Your task to perform on an android device: View the shopping cart on costco.com. Search for logitech g933 on costco.com, select the first entry, and add it to the cart. Image 0: 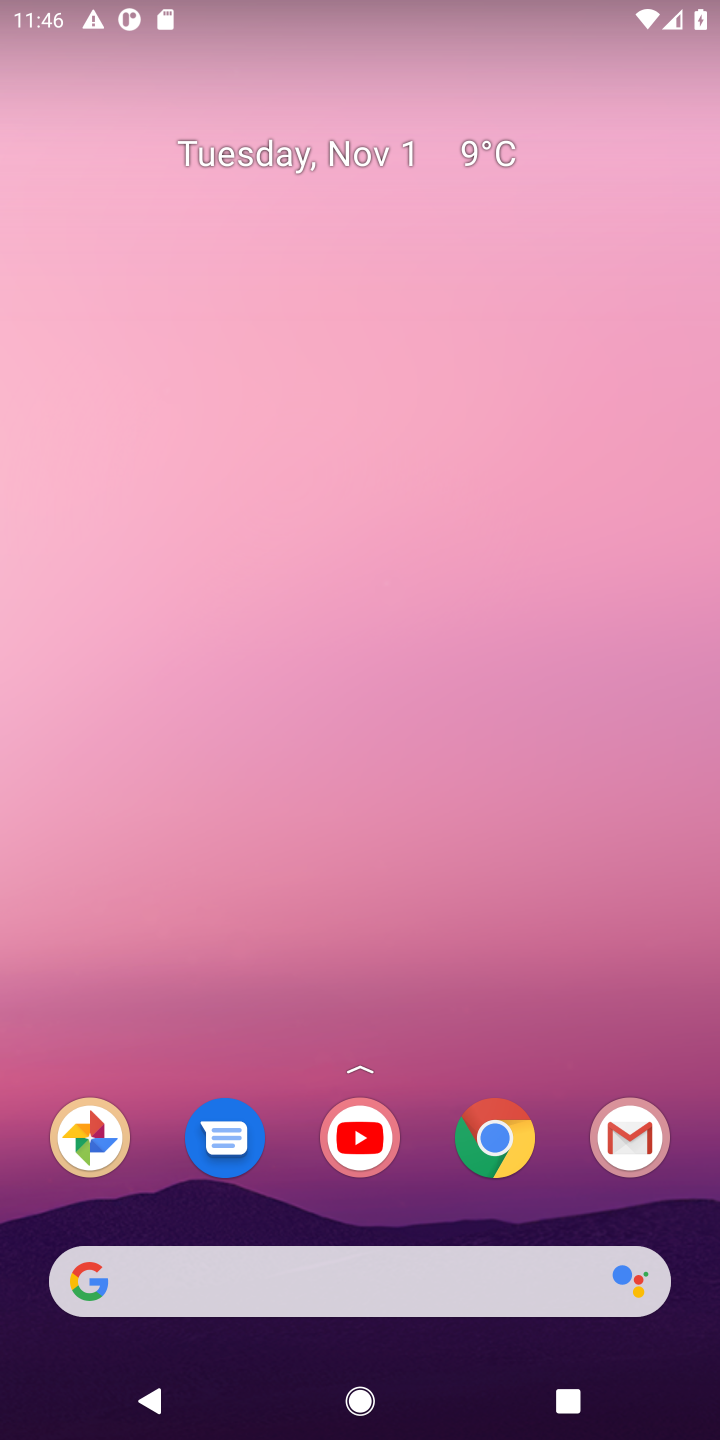
Step 0: click (534, 1273)
Your task to perform on an android device: View the shopping cart on costco.com. Search for logitech g933 on costco.com, select the first entry, and add it to the cart. Image 1: 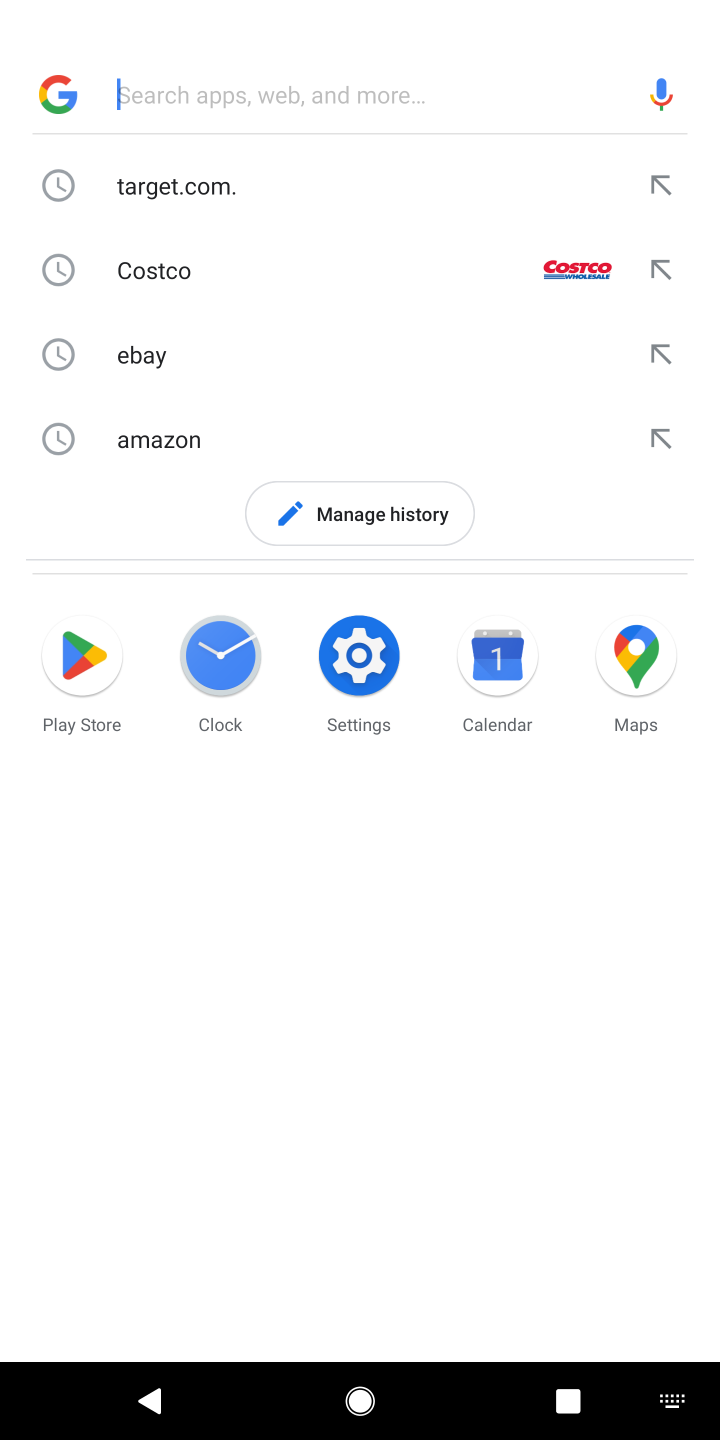
Step 1: click (712, 1365)
Your task to perform on an android device: View the shopping cart on costco.com. Search for logitech g933 on costco.com, select the first entry, and add it to the cart. Image 2: 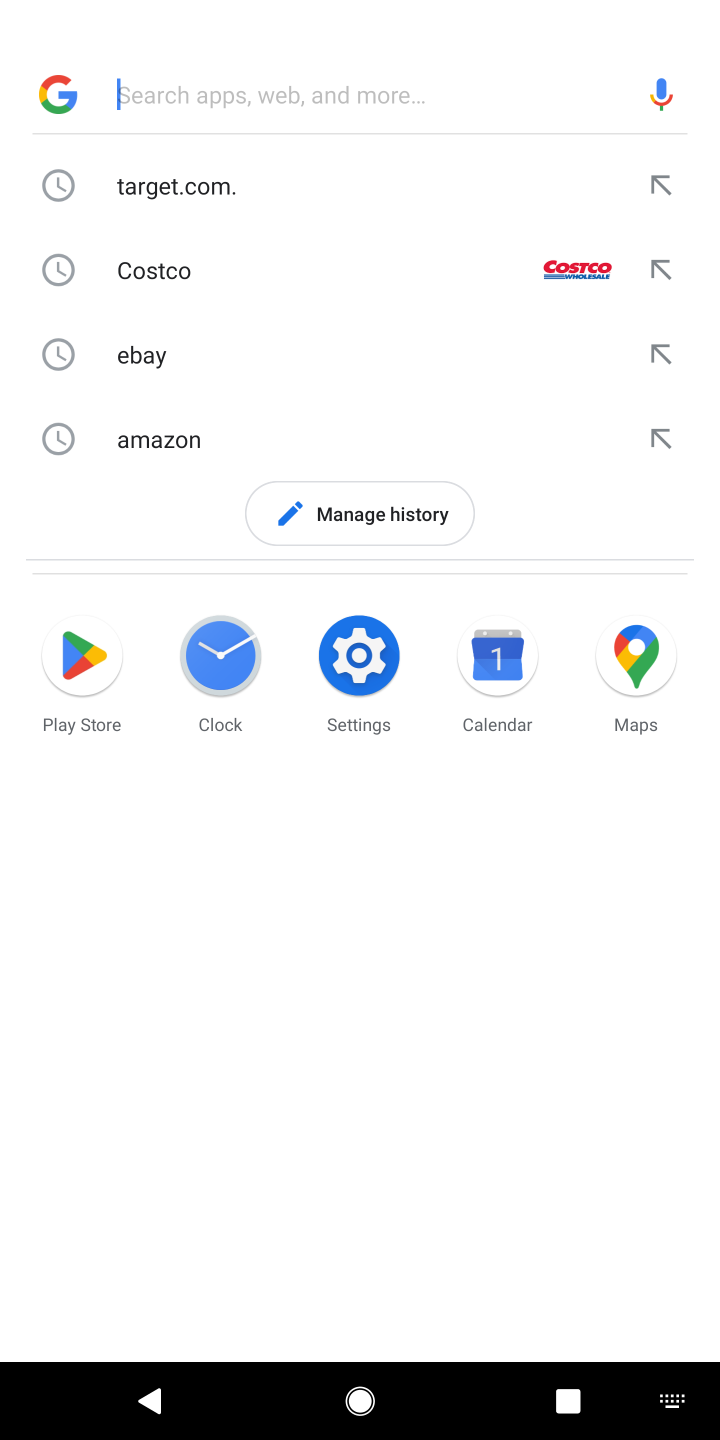
Step 2: type "costco.com"
Your task to perform on an android device: View the shopping cart on costco.com. Search for logitech g933 on costco.com, select the first entry, and add it to the cart. Image 3: 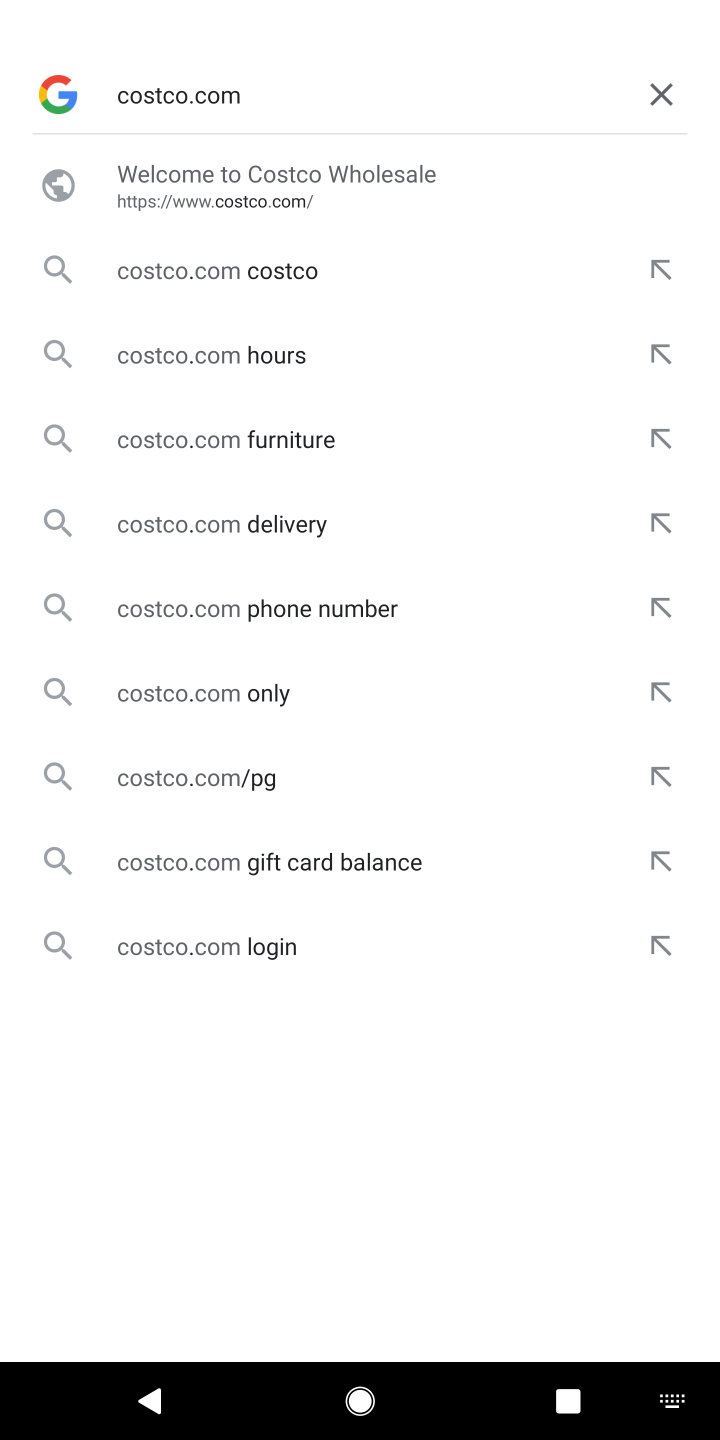
Step 3: type ""
Your task to perform on an android device: View the shopping cart on costco.com. Search for logitech g933 on costco.com, select the first entry, and add it to the cart. Image 4: 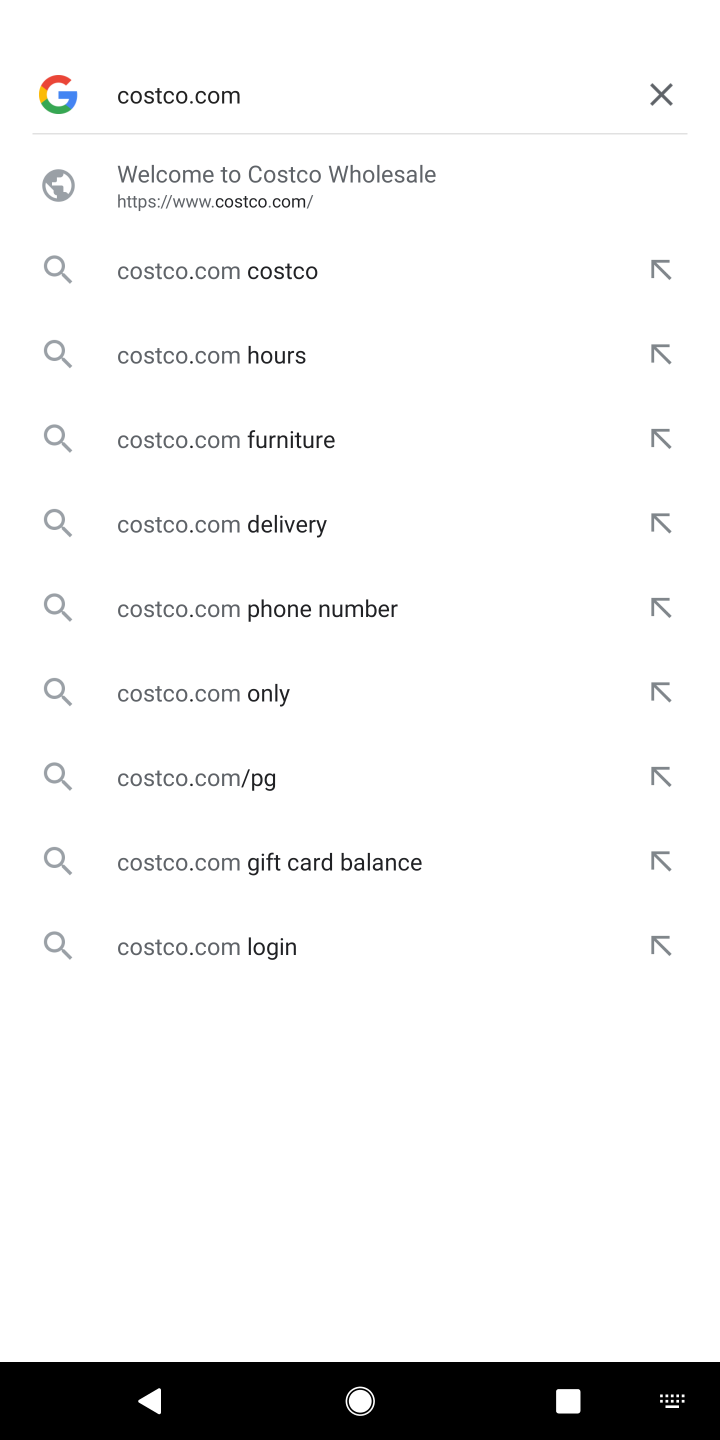
Step 4: click (345, 193)
Your task to perform on an android device: View the shopping cart on costco.com. Search for logitech g933 on costco.com, select the first entry, and add it to the cart. Image 5: 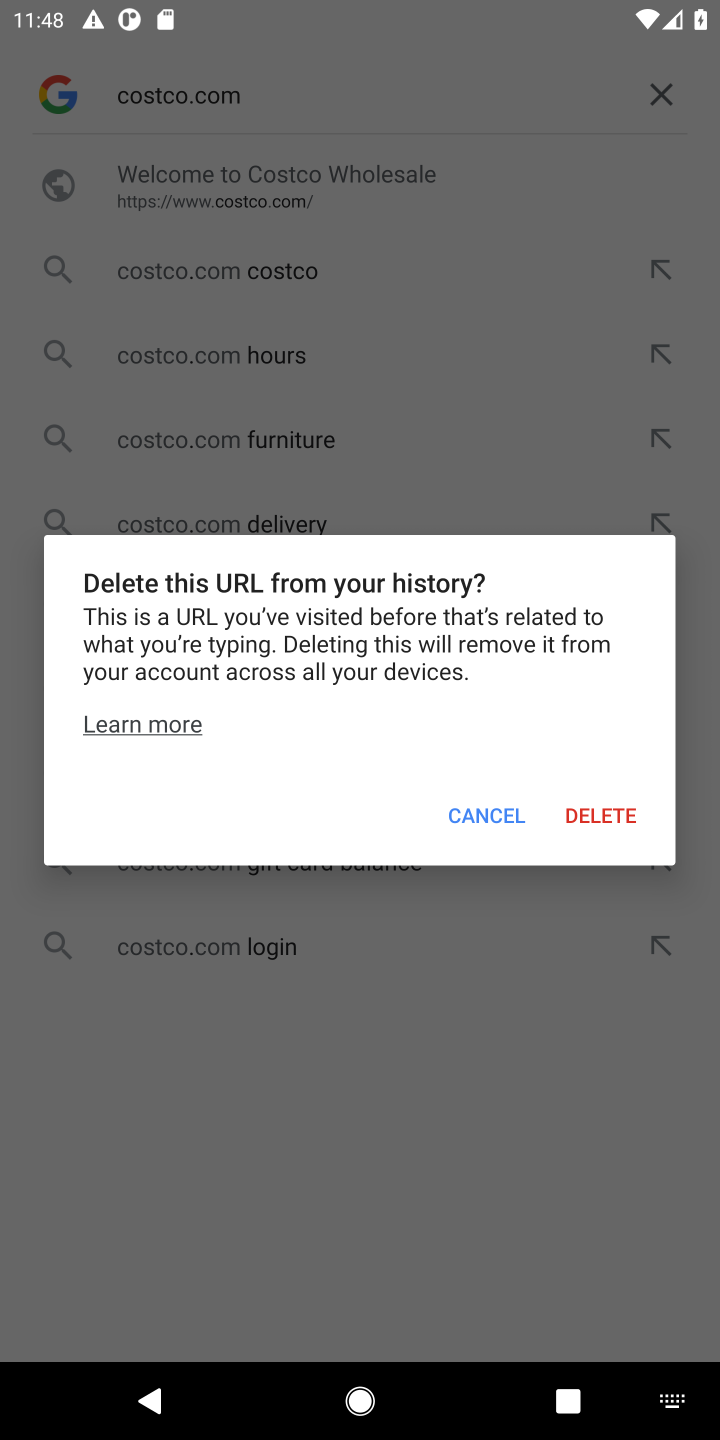
Step 5: click (502, 797)
Your task to perform on an android device: View the shopping cart on costco.com. Search for logitech g933 on costco.com, select the first entry, and add it to the cart. Image 6: 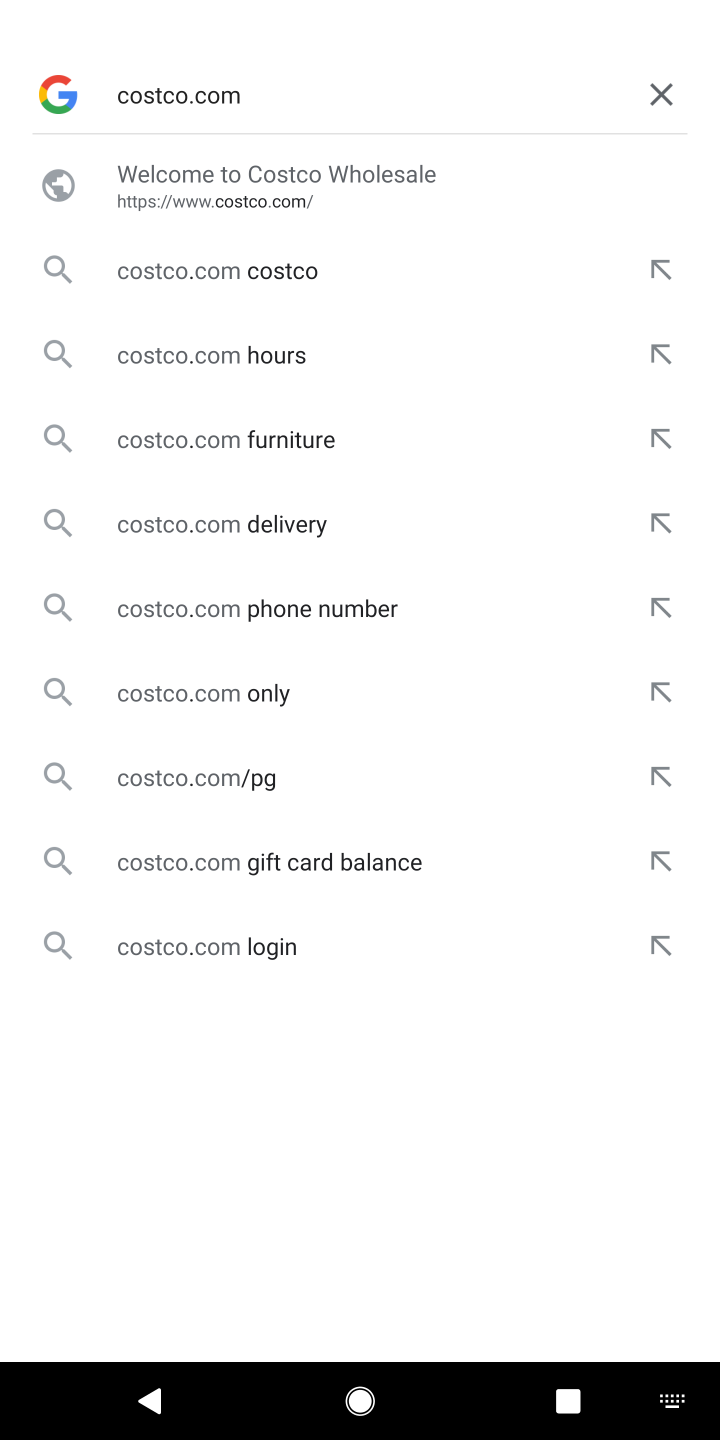
Step 6: click (272, 159)
Your task to perform on an android device: View the shopping cart on costco.com. Search for logitech g933 on costco.com, select the first entry, and add it to the cart. Image 7: 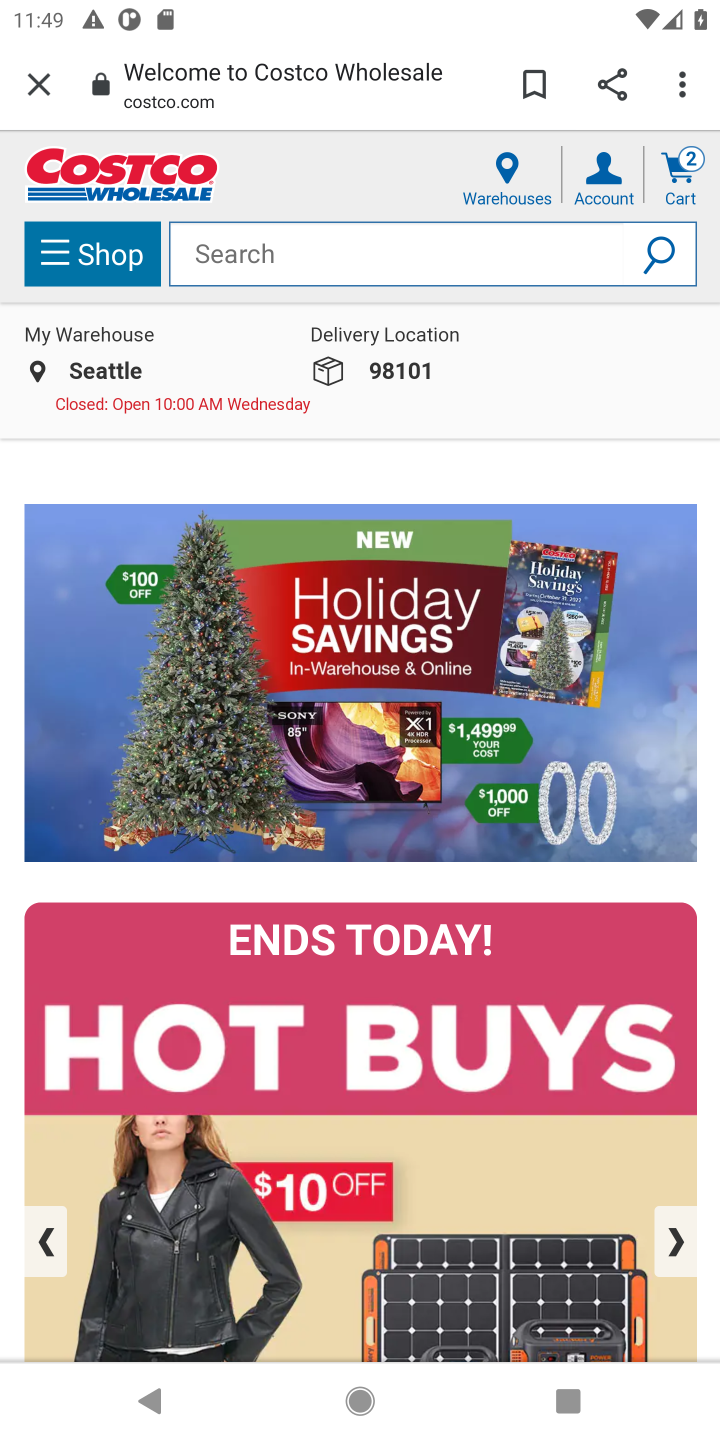
Step 7: click (301, 262)
Your task to perform on an android device: View the shopping cart on costco.com. Search for logitech g933 on costco.com, select the first entry, and add it to the cart. Image 8: 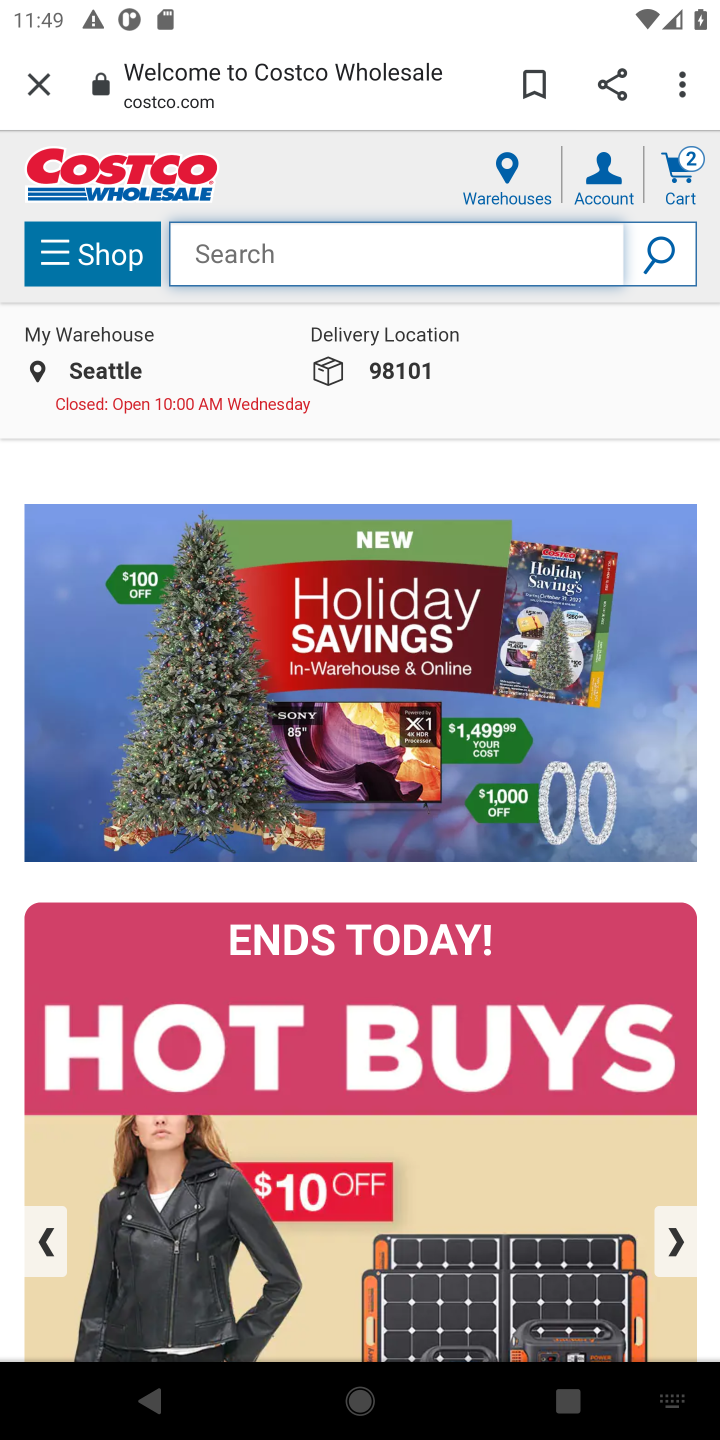
Step 8: type " logitech g933"
Your task to perform on an android device: View the shopping cart on costco.com. Search for logitech g933 on costco.com, select the first entry, and add it to the cart. Image 9: 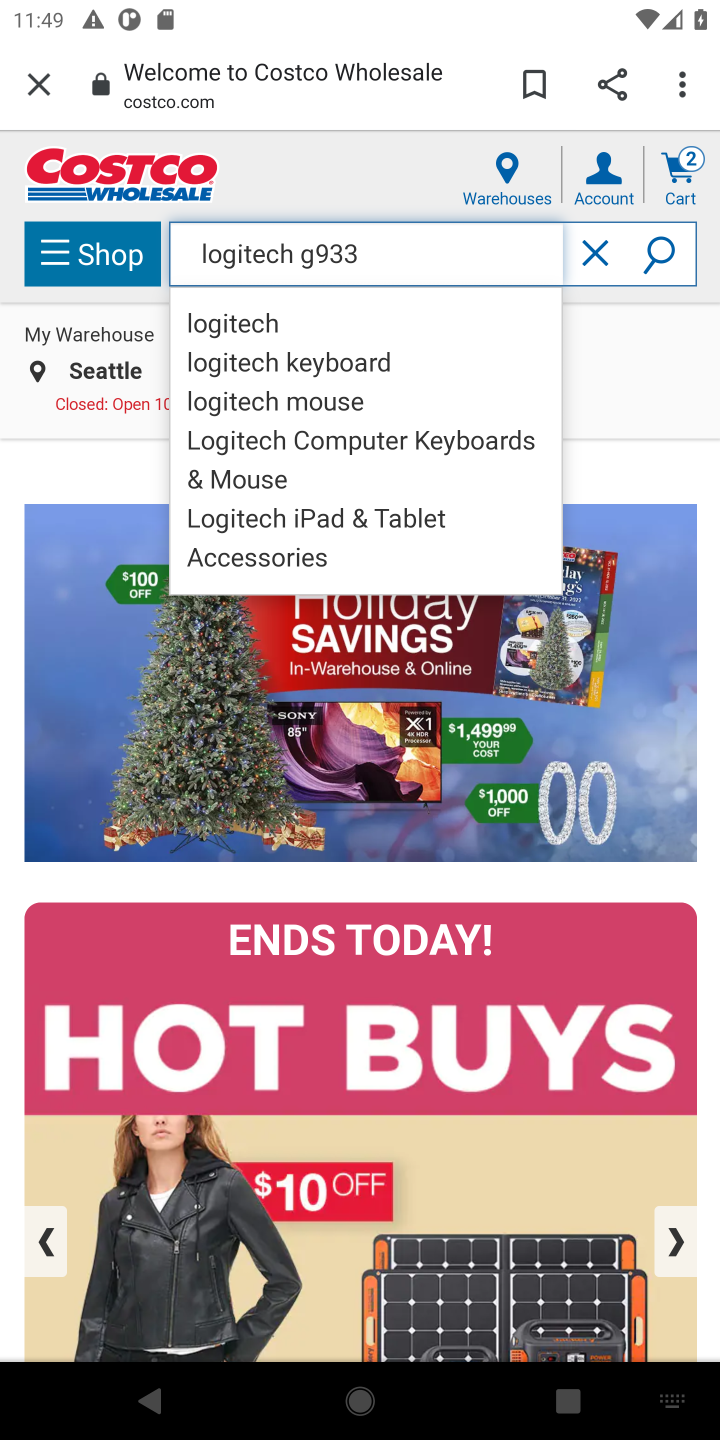
Step 9: click (650, 239)
Your task to perform on an android device: View the shopping cart on costco.com. Search for logitech g933 on costco.com, select the first entry, and add it to the cart. Image 10: 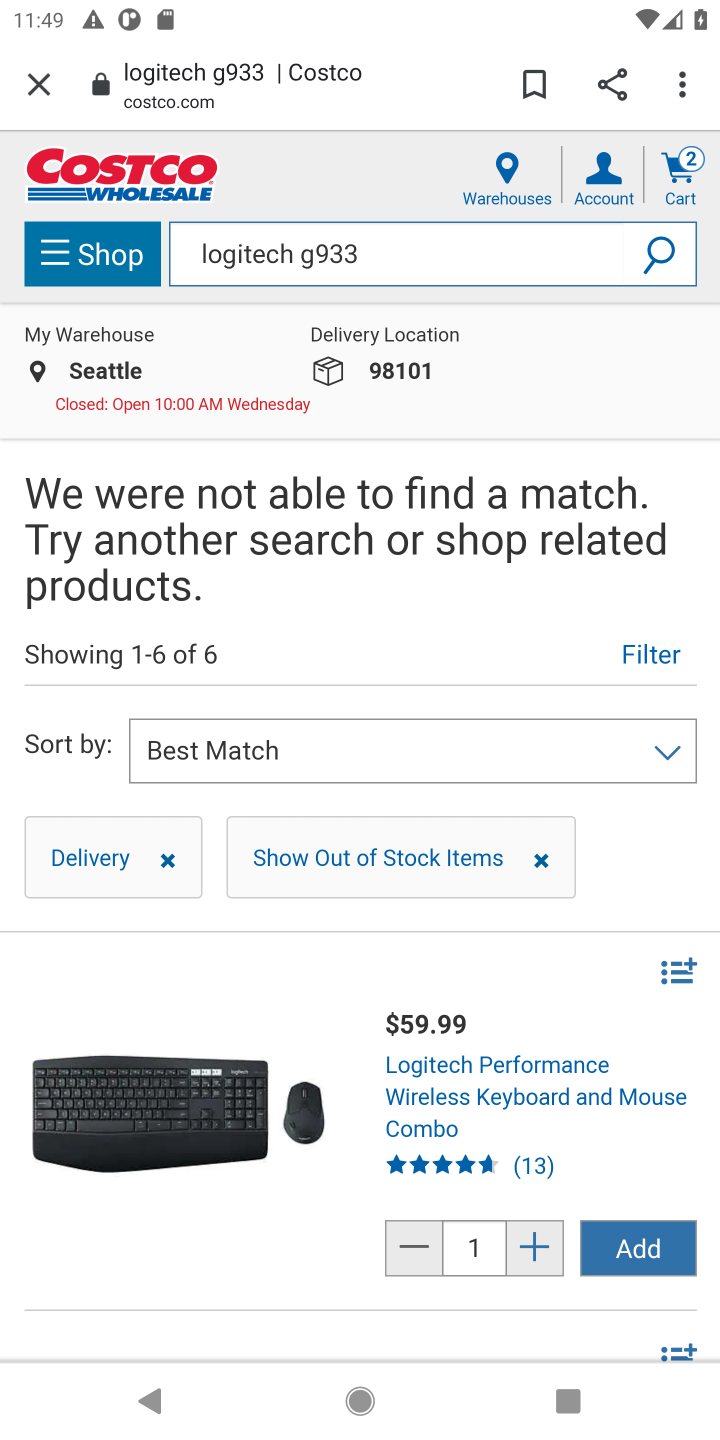
Step 10: click (653, 1238)
Your task to perform on an android device: View the shopping cart on costco.com. Search for logitech g933 on costco.com, select the first entry, and add it to the cart. Image 11: 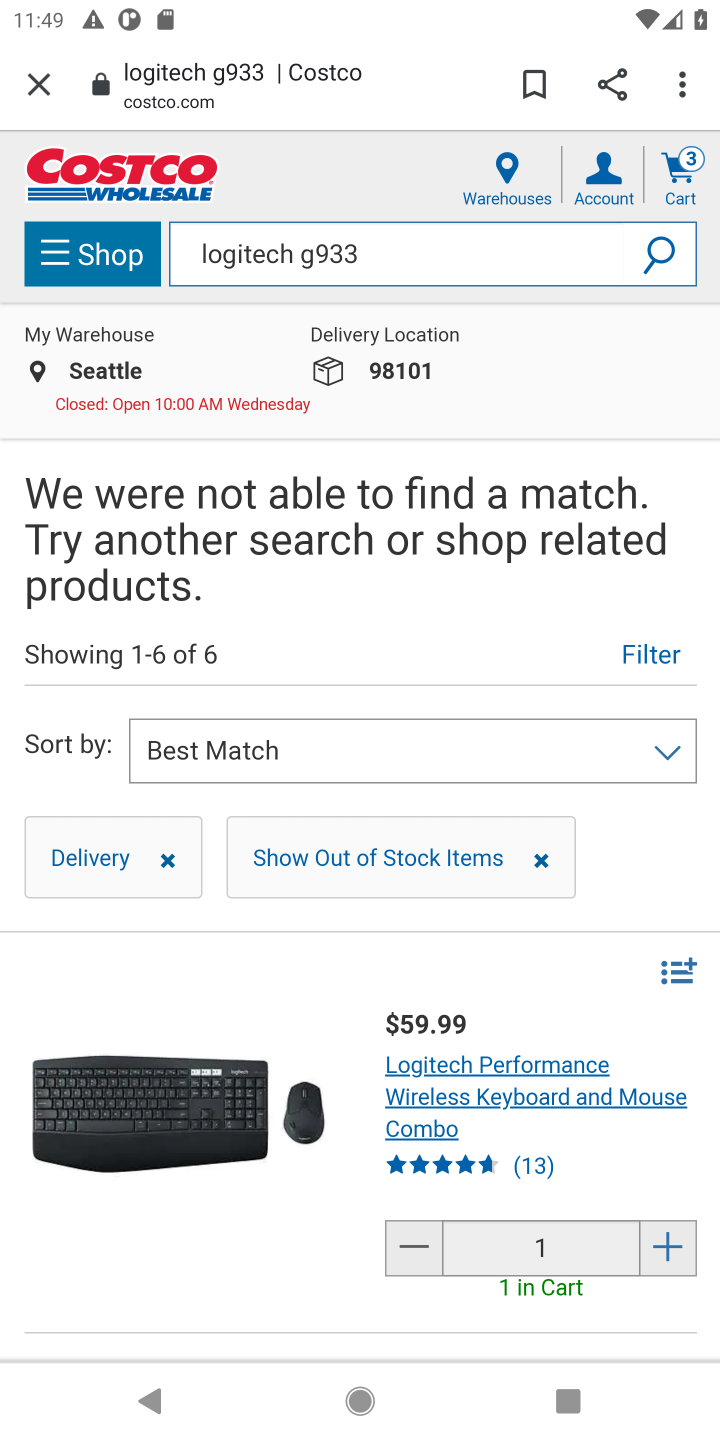
Step 11: task complete